Your task to perform on an android device: toggle airplane mode Image 0: 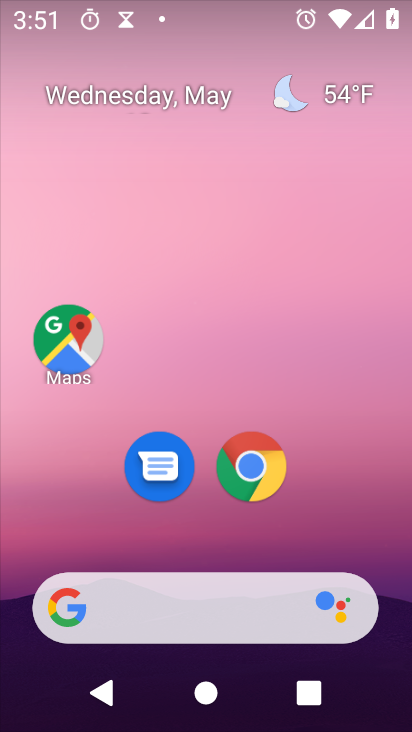
Step 0: drag from (369, 479) to (278, 177)
Your task to perform on an android device: toggle airplane mode Image 1: 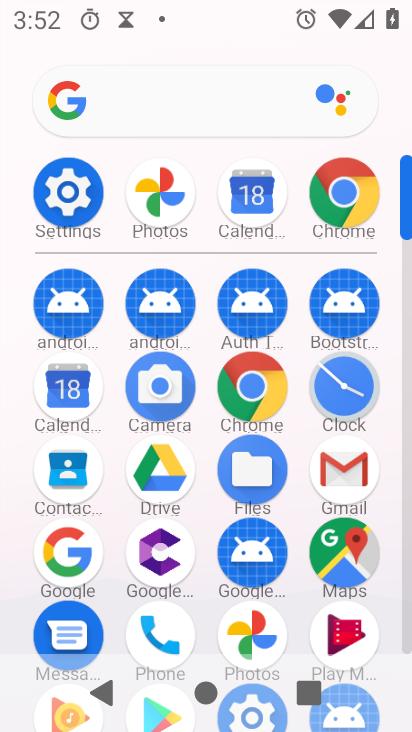
Step 1: click (407, 639)
Your task to perform on an android device: toggle airplane mode Image 2: 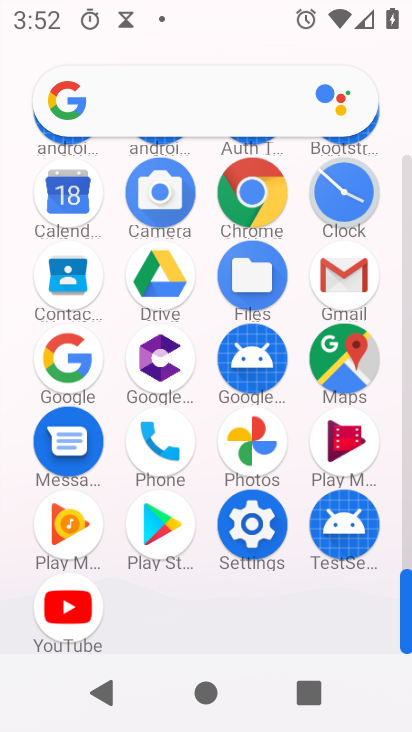
Step 2: click (272, 543)
Your task to perform on an android device: toggle airplane mode Image 3: 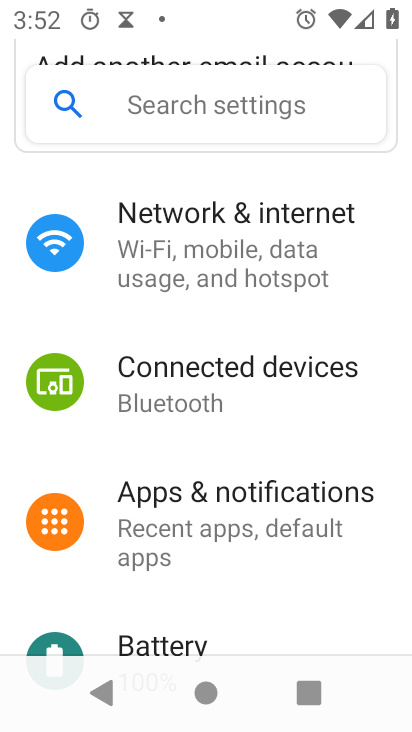
Step 3: drag from (308, 584) to (274, 418)
Your task to perform on an android device: toggle airplane mode Image 4: 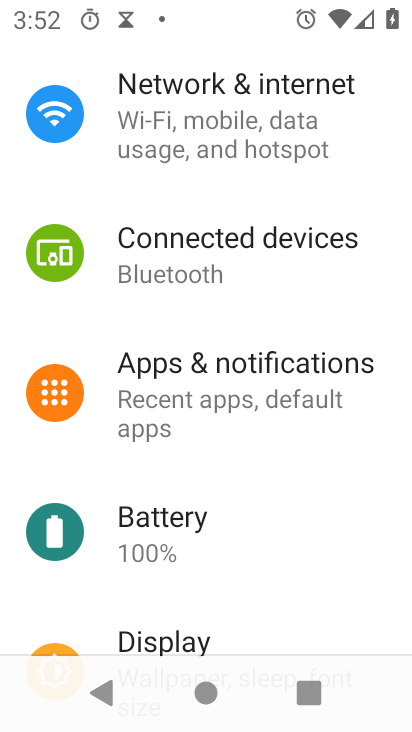
Step 4: click (249, 147)
Your task to perform on an android device: toggle airplane mode Image 5: 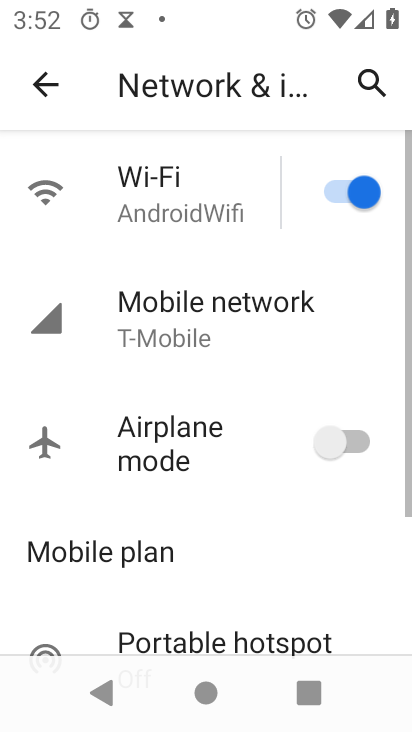
Step 5: click (345, 447)
Your task to perform on an android device: toggle airplane mode Image 6: 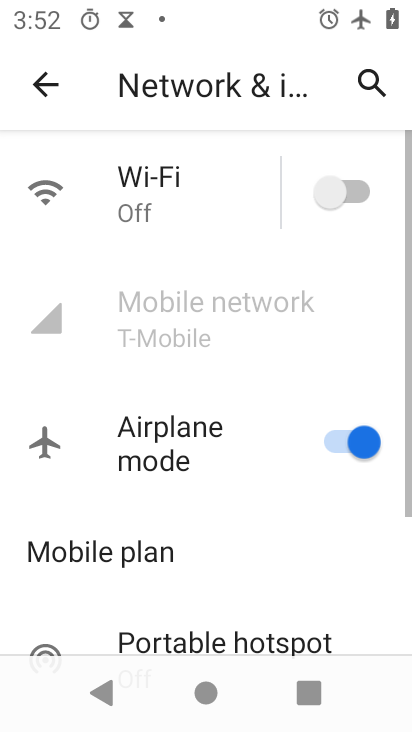
Step 6: task complete